Your task to perform on an android device: delete location history Image 0: 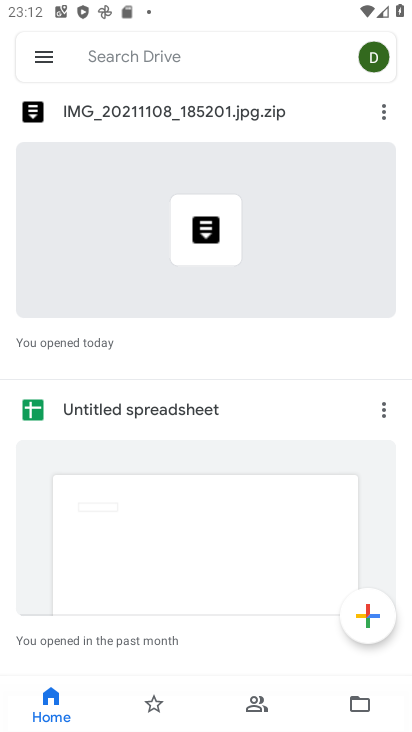
Step 0: press home button
Your task to perform on an android device: delete location history Image 1: 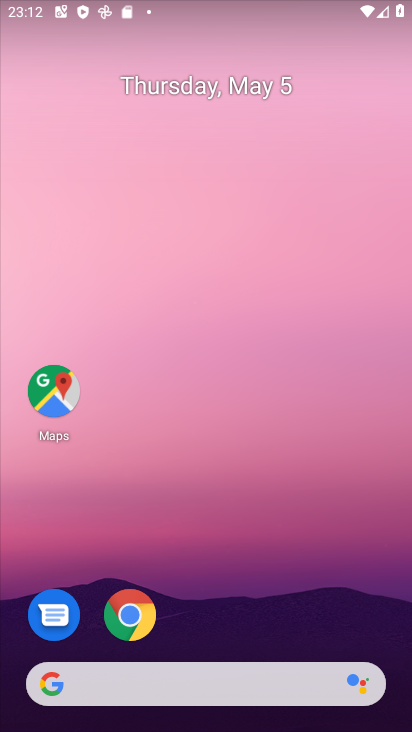
Step 1: drag from (231, 603) to (277, 206)
Your task to perform on an android device: delete location history Image 2: 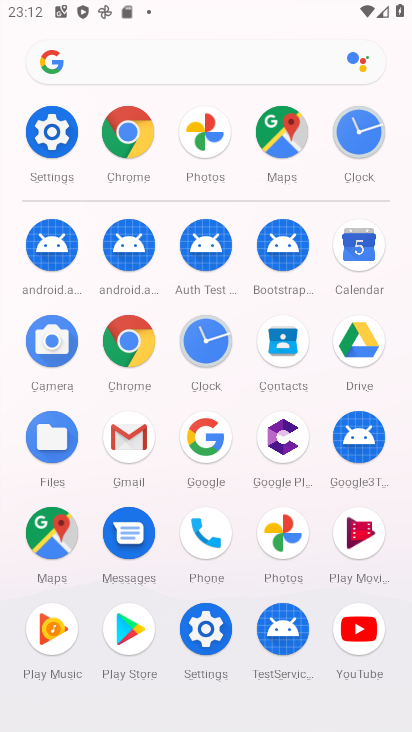
Step 2: click (54, 132)
Your task to perform on an android device: delete location history Image 3: 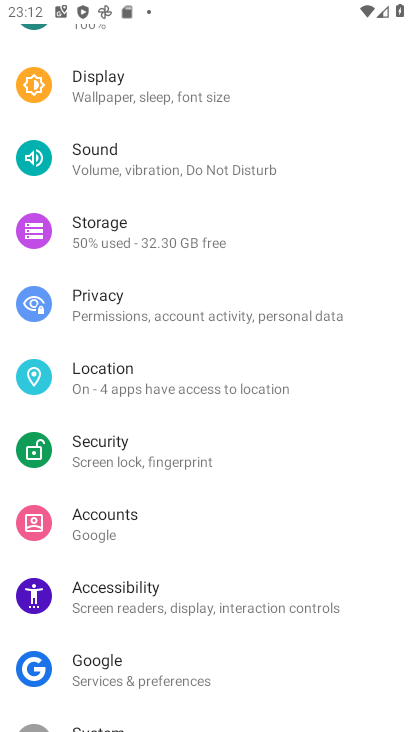
Step 3: click (134, 379)
Your task to perform on an android device: delete location history Image 4: 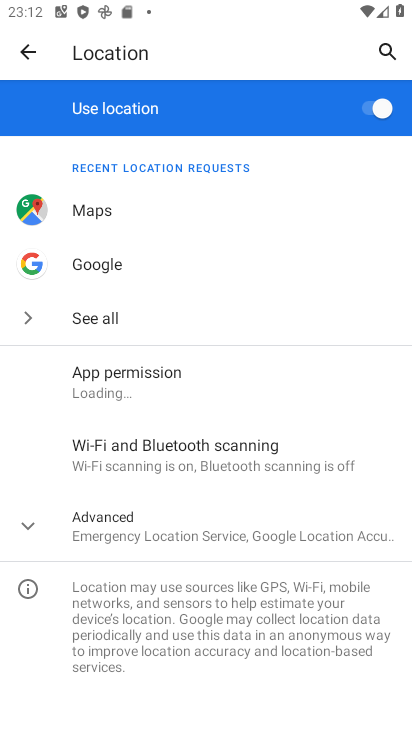
Step 4: click (95, 521)
Your task to perform on an android device: delete location history Image 5: 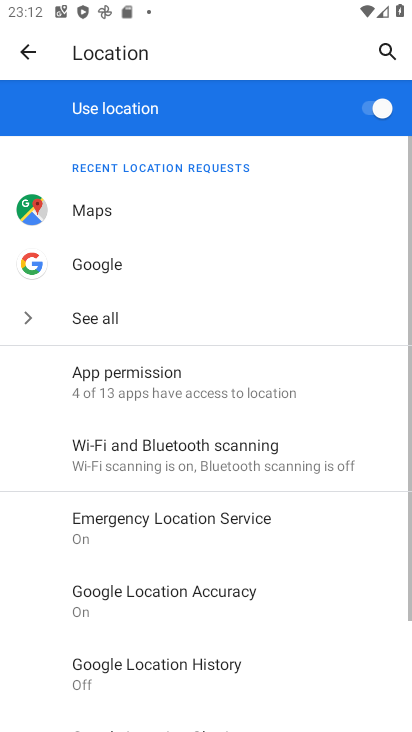
Step 5: drag from (250, 574) to (265, 269)
Your task to perform on an android device: delete location history Image 6: 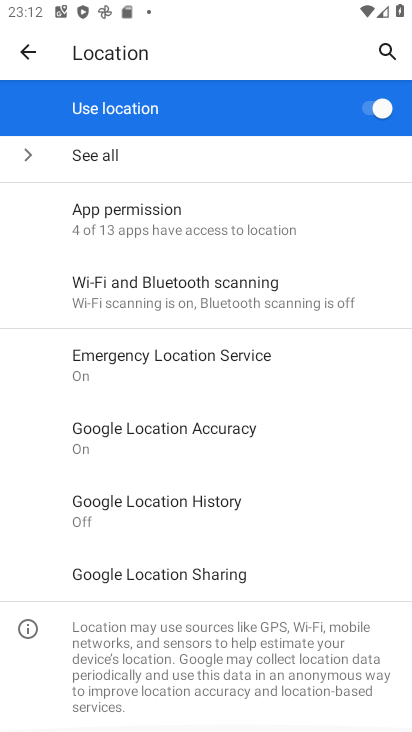
Step 6: click (136, 510)
Your task to perform on an android device: delete location history Image 7: 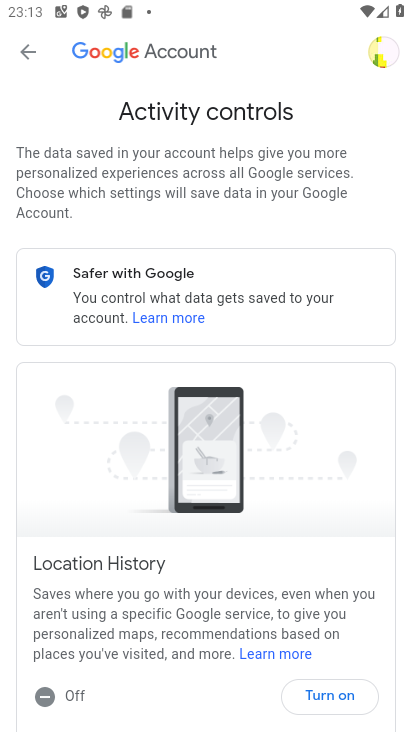
Step 7: drag from (274, 601) to (290, 246)
Your task to perform on an android device: delete location history Image 8: 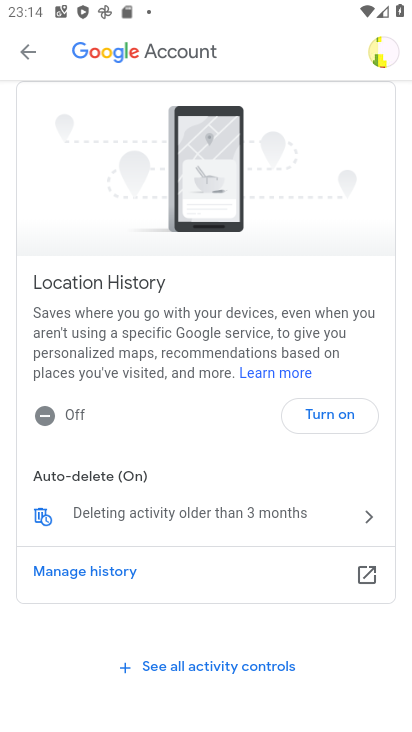
Step 8: click (41, 519)
Your task to perform on an android device: delete location history Image 9: 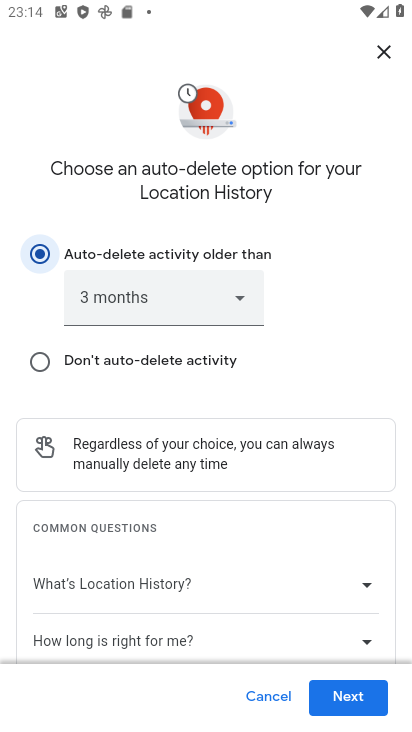
Step 9: click (340, 686)
Your task to perform on an android device: delete location history Image 10: 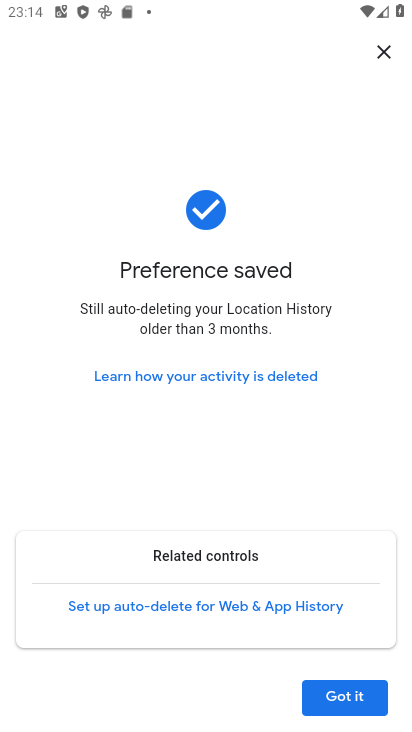
Step 10: click (346, 701)
Your task to perform on an android device: delete location history Image 11: 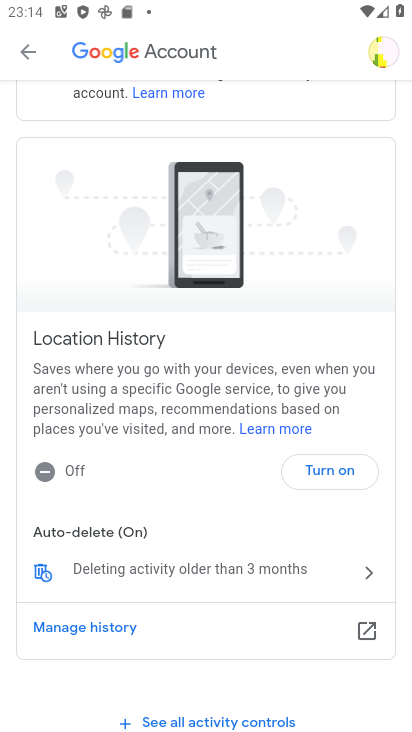
Step 11: task complete